Your task to perform on an android device: turn off notifications settings in the gmail app Image 0: 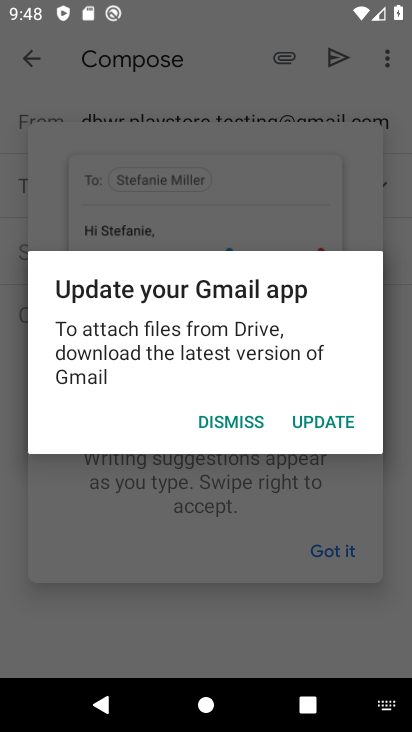
Step 0: press home button
Your task to perform on an android device: turn off notifications settings in the gmail app Image 1: 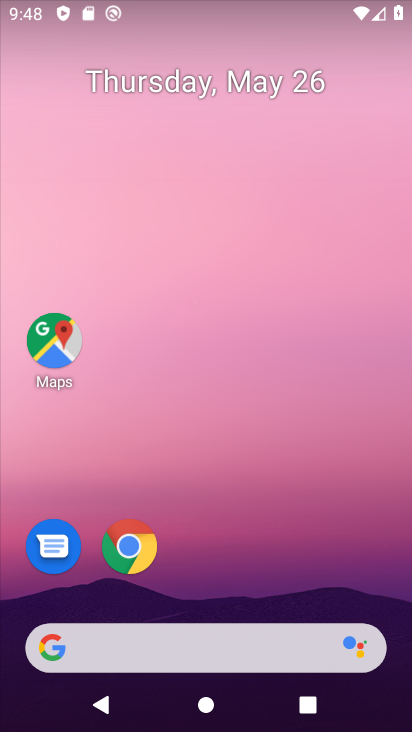
Step 1: drag from (314, 572) to (301, 209)
Your task to perform on an android device: turn off notifications settings in the gmail app Image 2: 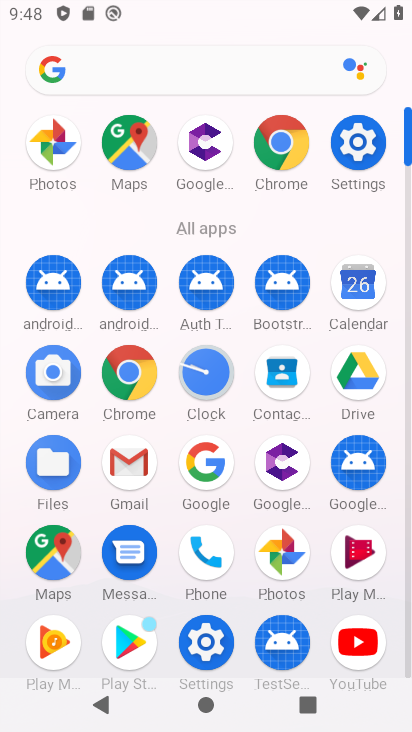
Step 2: click (132, 453)
Your task to perform on an android device: turn off notifications settings in the gmail app Image 3: 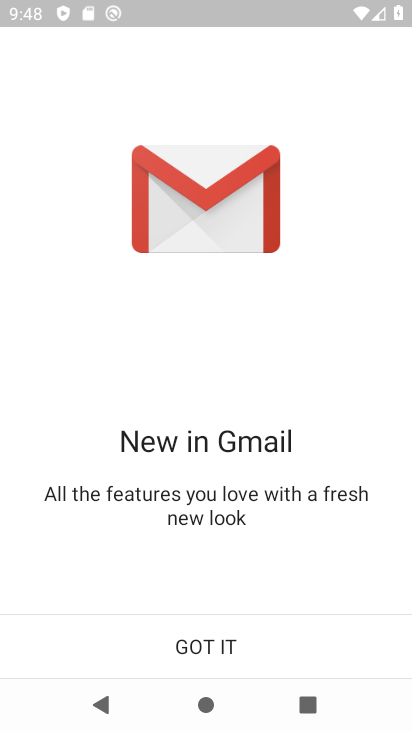
Step 3: click (190, 638)
Your task to perform on an android device: turn off notifications settings in the gmail app Image 4: 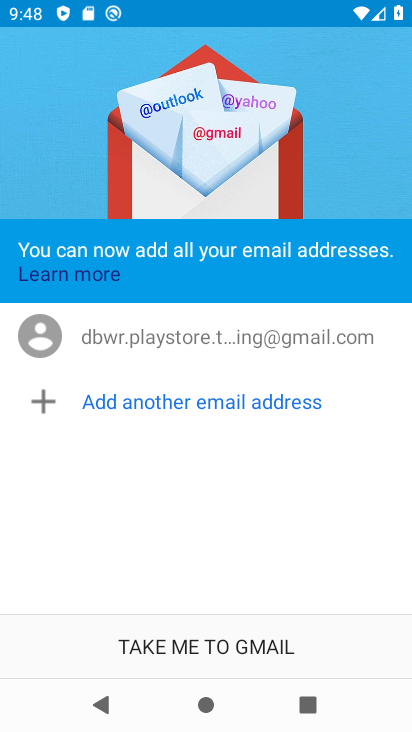
Step 4: click (191, 639)
Your task to perform on an android device: turn off notifications settings in the gmail app Image 5: 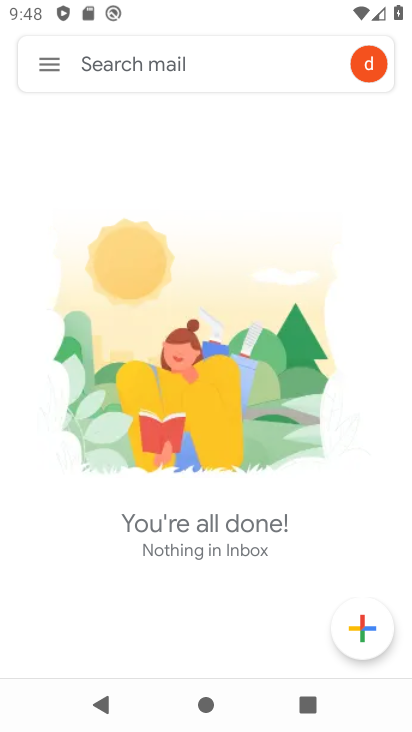
Step 5: click (43, 64)
Your task to perform on an android device: turn off notifications settings in the gmail app Image 6: 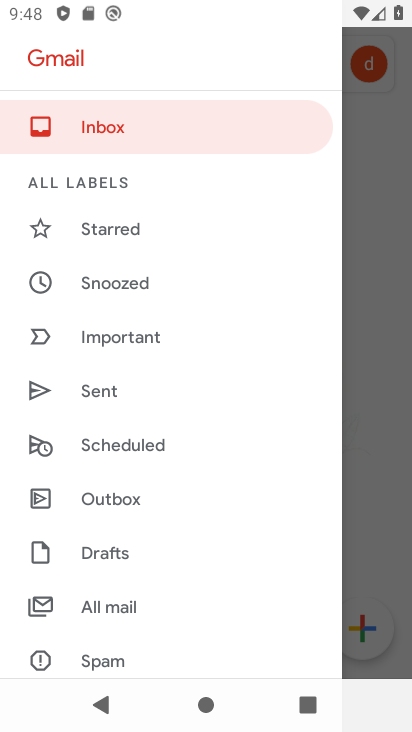
Step 6: drag from (200, 635) to (200, 241)
Your task to perform on an android device: turn off notifications settings in the gmail app Image 7: 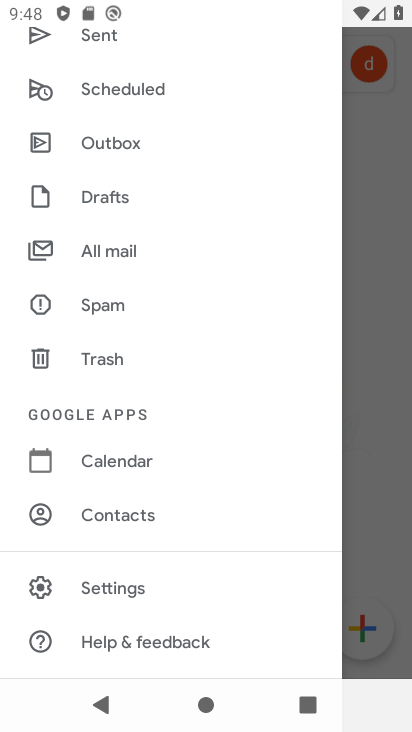
Step 7: click (102, 589)
Your task to perform on an android device: turn off notifications settings in the gmail app Image 8: 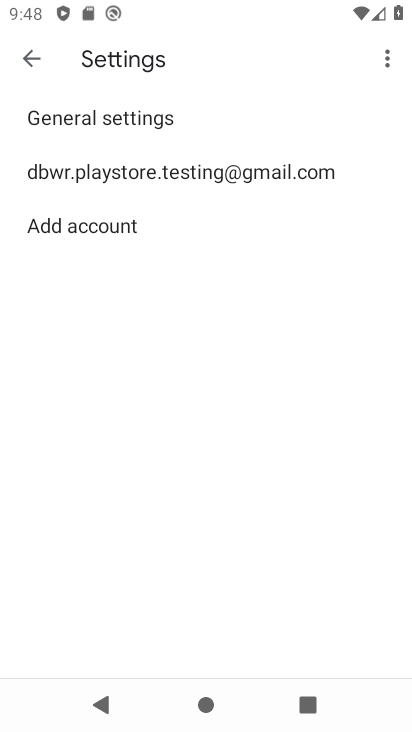
Step 8: click (105, 170)
Your task to perform on an android device: turn off notifications settings in the gmail app Image 9: 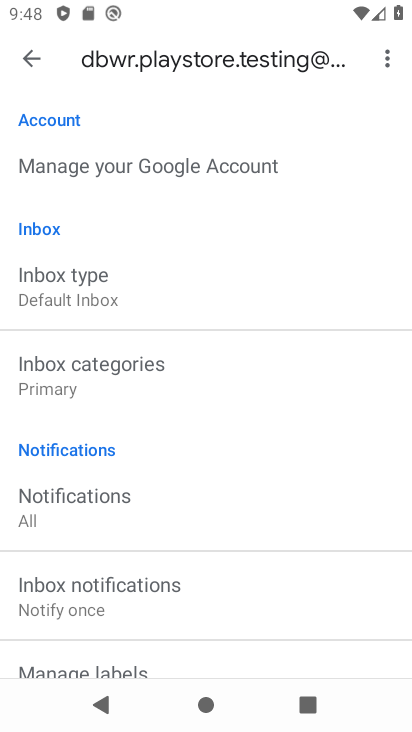
Step 9: click (88, 495)
Your task to perform on an android device: turn off notifications settings in the gmail app Image 10: 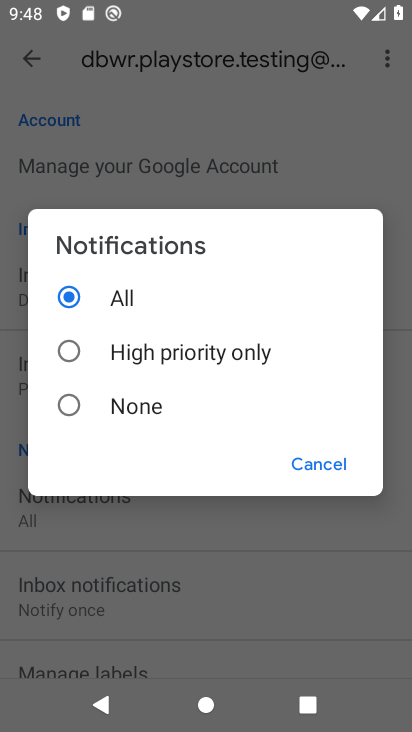
Step 10: task complete